Your task to perform on an android device: all mails in gmail Image 0: 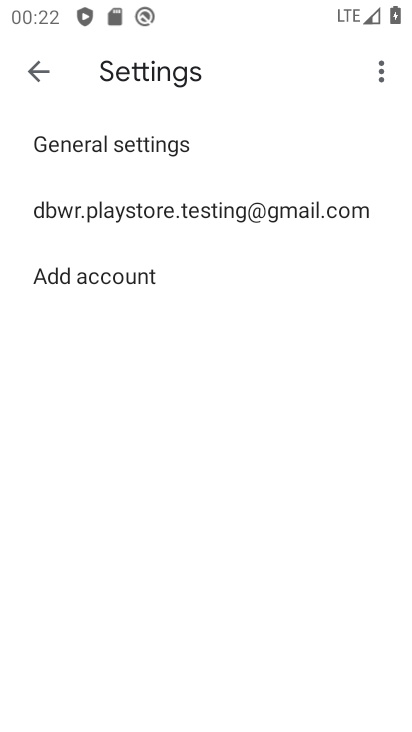
Step 0: press home button
Your task to perform on an android device: all mails in gmail Image 1: 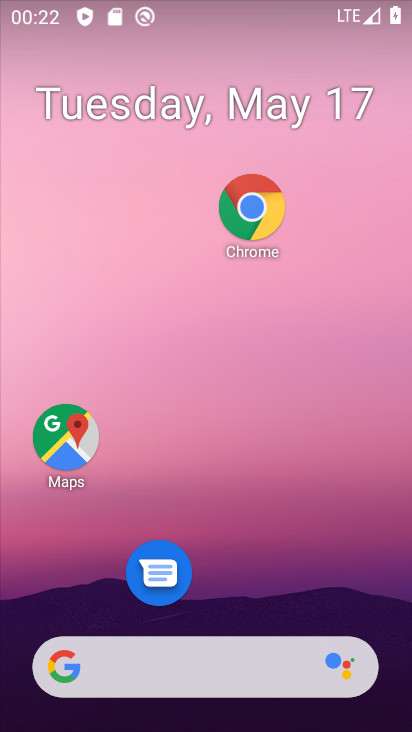
Step 1: drag from (272, 706) to (261, 39)
Your task to perform on an android device: all mails in gmail Image 2: 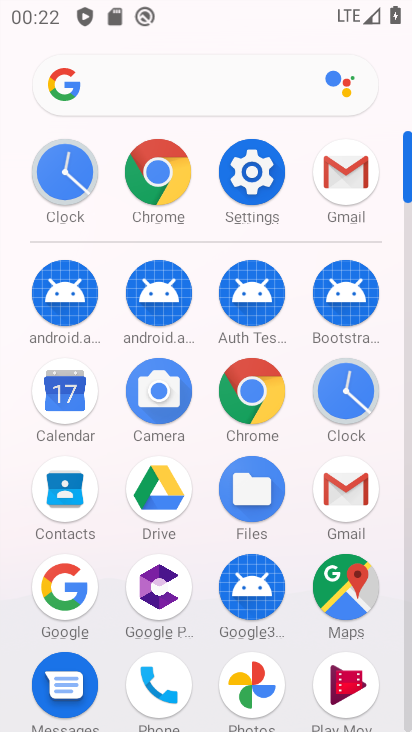
Step 2: click (326, 496)
Your task to perform on an android device: all mails in gmail Image 3: 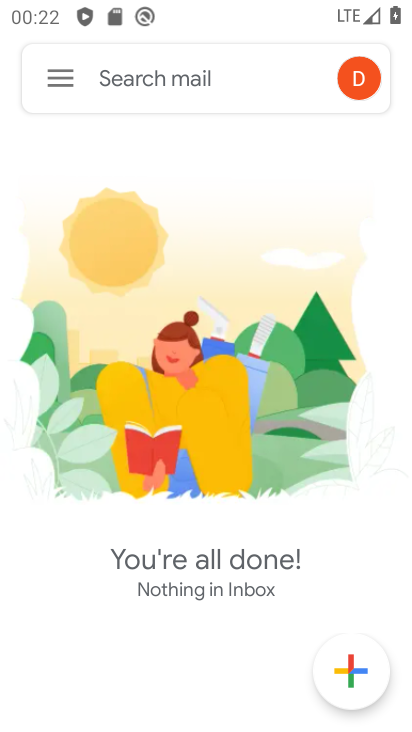
Step 3: click (63, 75)
Your task to perform on an android device: all mails in gmail Image 4: 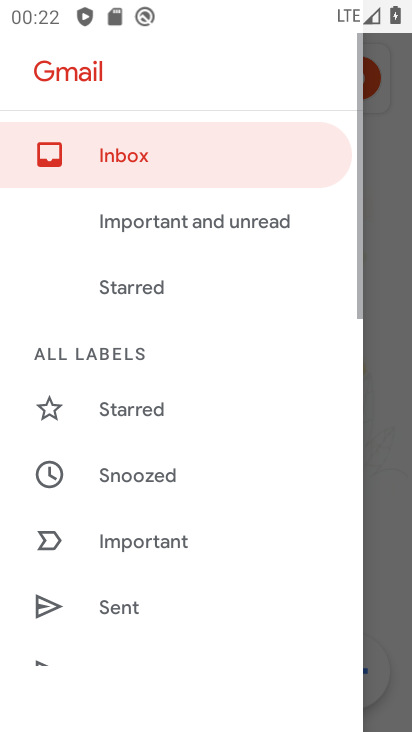
Step 4: drag from (196, 577) to (238, 101)
Your task to perform on an android device: all mails in gmail Image 5: 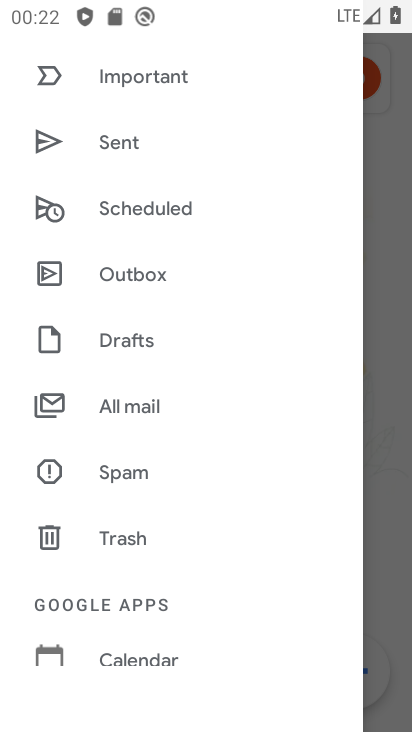
Step 5: click (160, 404)
Your task to perform on an android device: all mails in gmail Image 6: 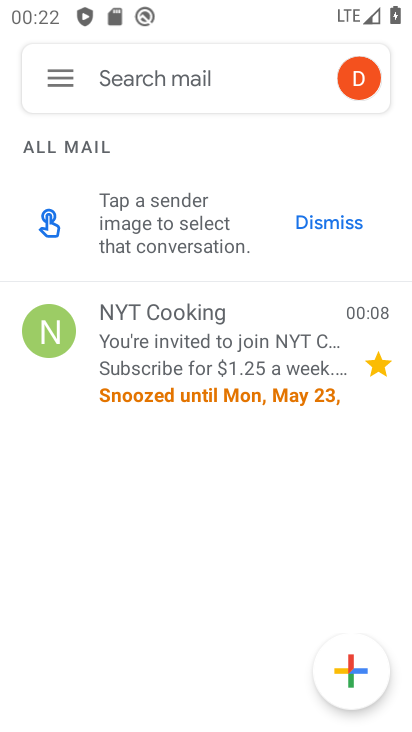
Step 6: task complete